Your task to perform on an android device: allow cookies in the chrome app Image 0: 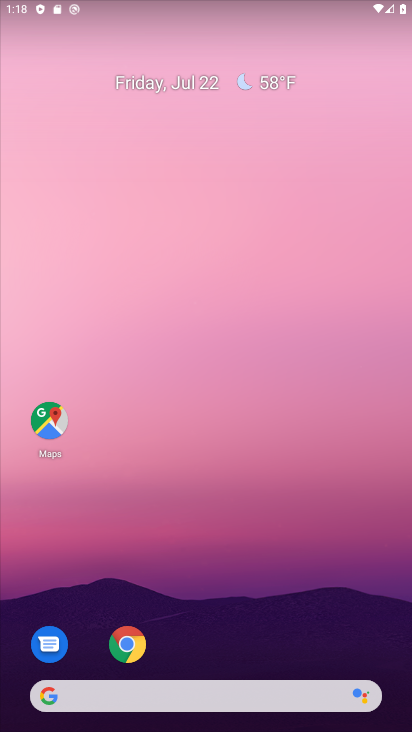
Step 0: click (124, 647)
Your task to perform on an android device: allow cookies in the chrome app Image 1: 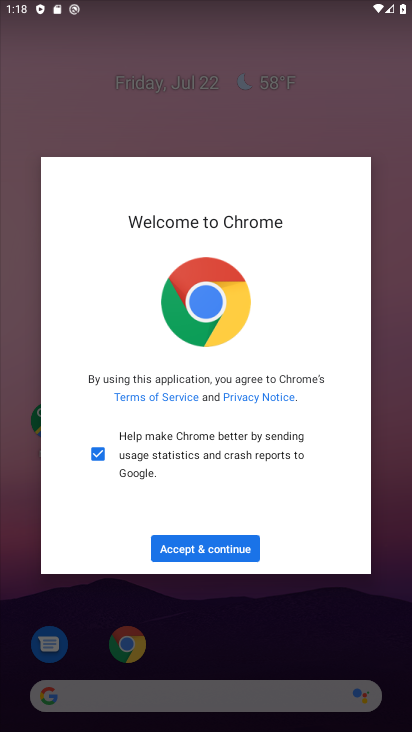
Step 1: click (207, 541)
Your task to perform on an android device: allow cookies in the chrome app Image 2: 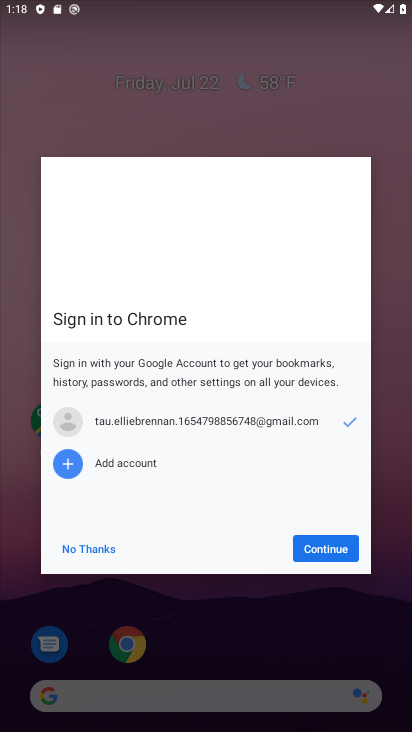
Step 2: click (304, 551)
Your task to perform on an android device: allow cookies in the chrome app Image 3: 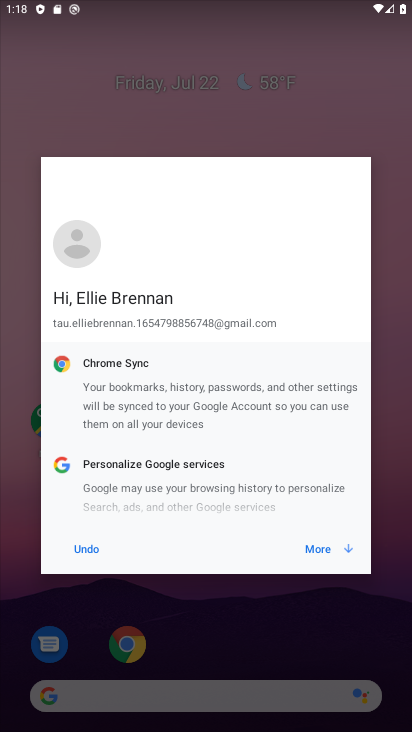
Step 3: click (304, 551)
Your task to perform on an android device: allow cookies in the chrome app Image 4: 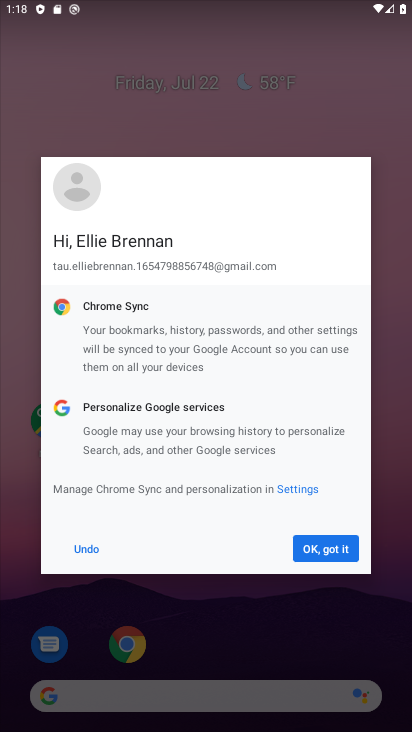
Step 4: click (314, 549)
Your task to perform on an android device: allow cookies in the chrome app Image 5: 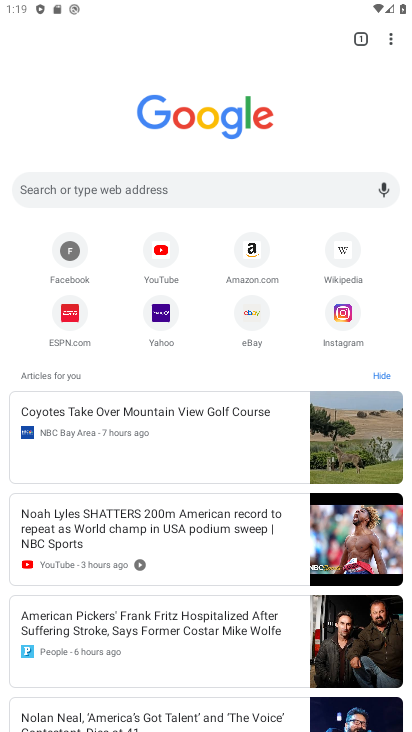
Step 5: click (393, 41)
Your task to perform on an android device: allow cookies in the chrome app Image 6: 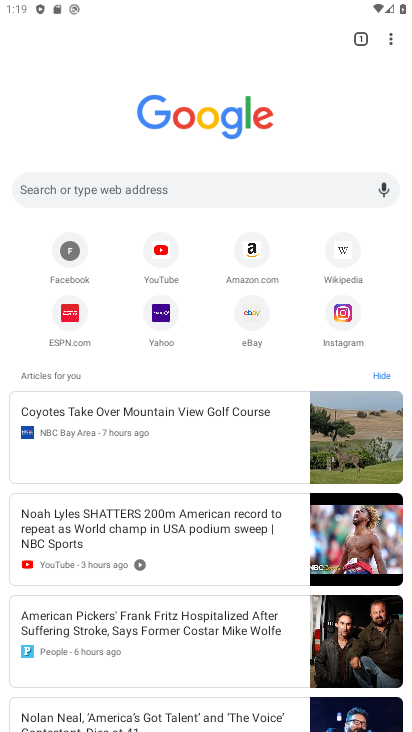
Step 6: click (383, 44)
Your task to perform on an android device: allow cookies in the chrome app Image 7: 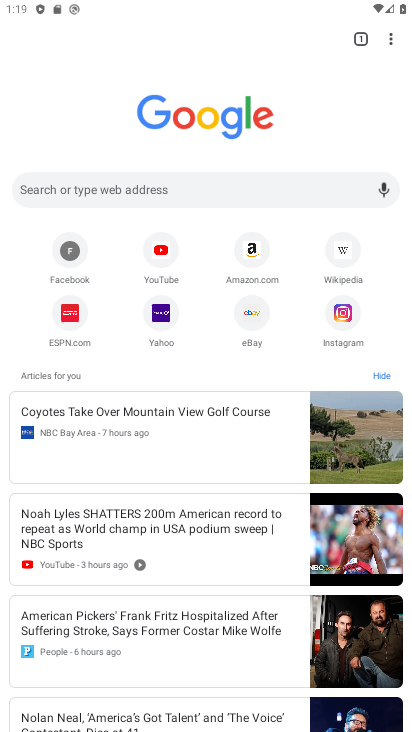
Step 7: click (396, 32)
Your task to perform on an android device: allow cookies in the chrome app Image 8: 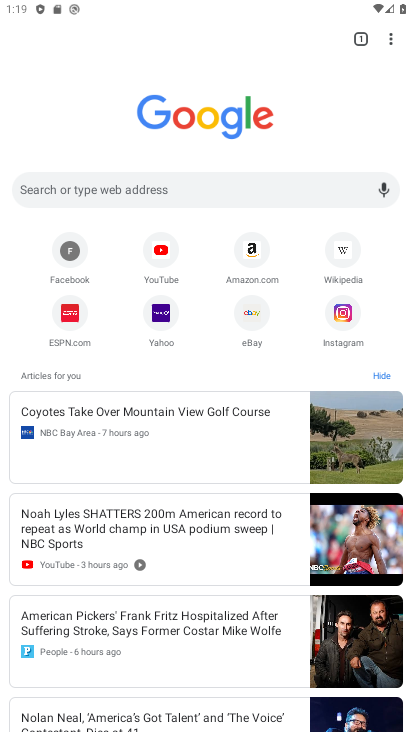
Step 8: click (386, 32)
Your task to perform on an android device: allow cookies in the chrome app Image 9: 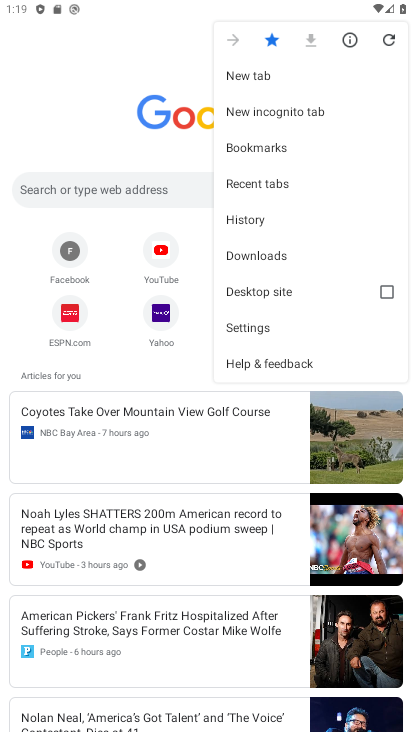
Step 9: click (265, 329)
Your task to perform on an android device: allow cookies in the chrome app Image 10: 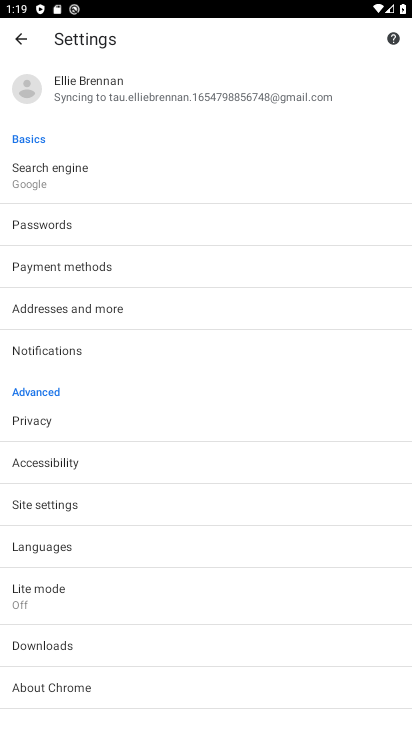
Step 10: click (46, 509)
Your task to perform on an android device: allow cookies in the chrome app Image 11: 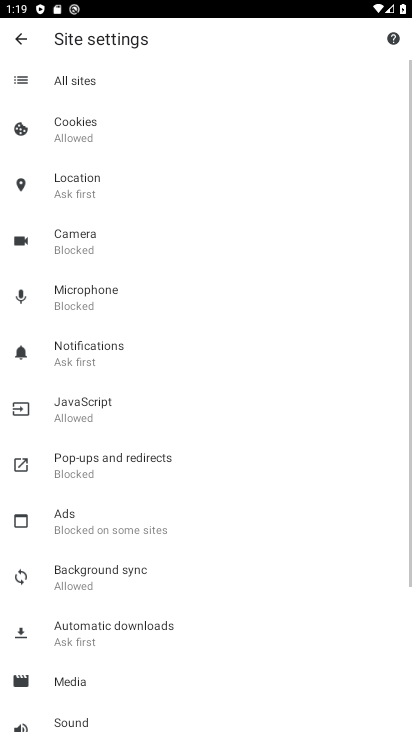
Step 11: click (168, 128)
Your task to perform on an android device: allow cookies in the chrome app Image 12: 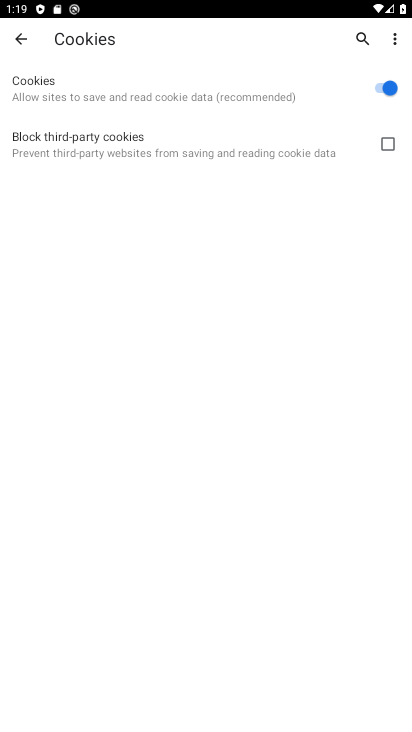
Step 12: task complete